Your task to perform on an android device: open app "PlayWell" (install if not already installed) Image 0: 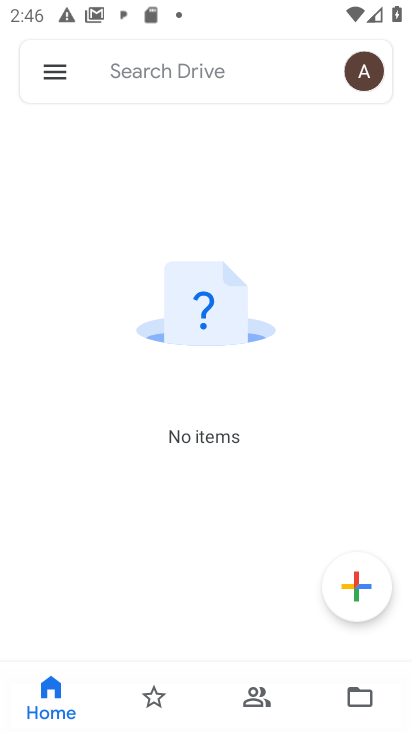
Step 0: press back button
Your task to perform on an android device: open app "PlayWell" (install if not already installed) Image 1: 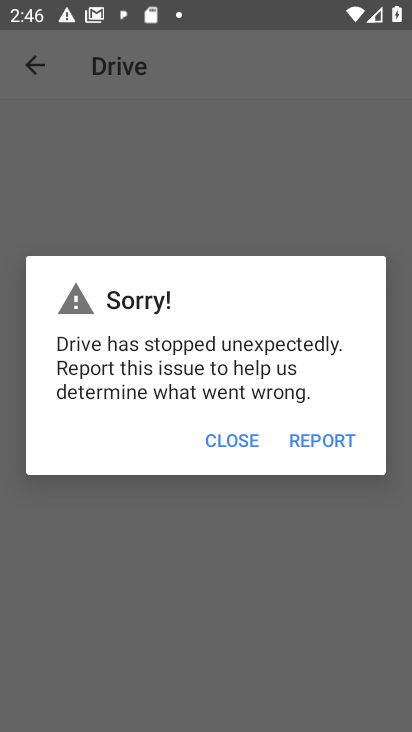
Step 1: press back button
Your task to perform on an android device: open app "PlayWell" (install if not already installed) Image 2: 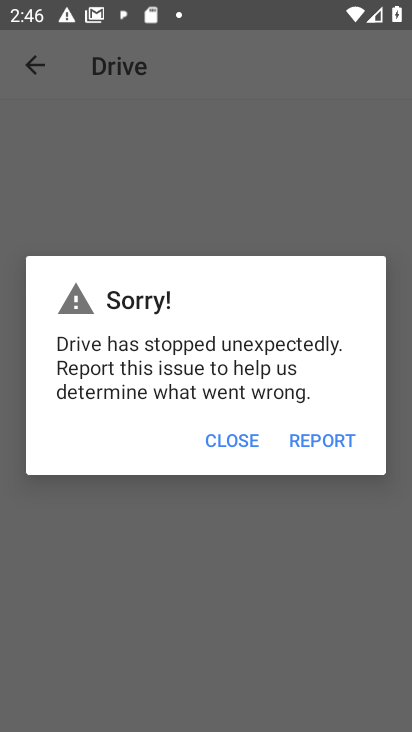
Step 2: press home button
Your task to perform on an android device: open app "PlayWell" (install if not already installed) Image 3: 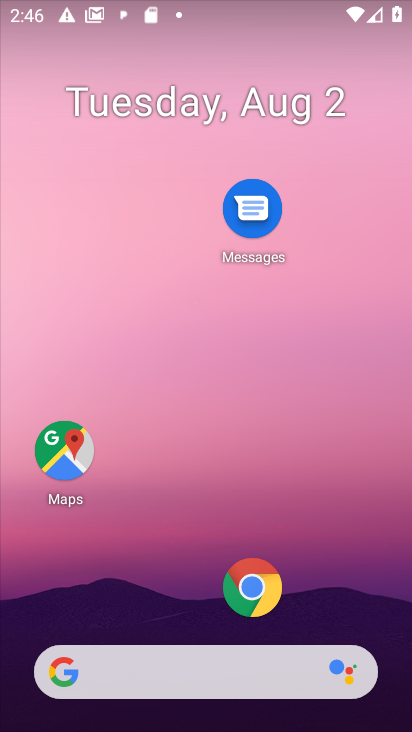
Step 3: drag from (198, 596) to (196, 173)
Your task to perform on an android device: open app "PlayWell" (install if not already installed) Image 4: 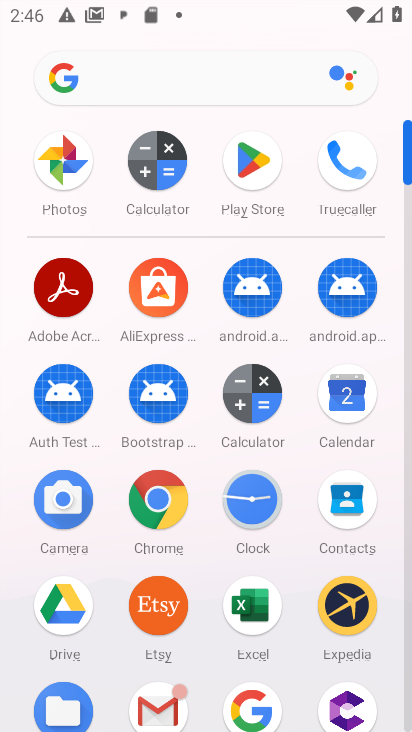
Step 4: click (249, 161)
Your task to perform on an android device: open app "PlayWell" (install if not already installed) Image 5: 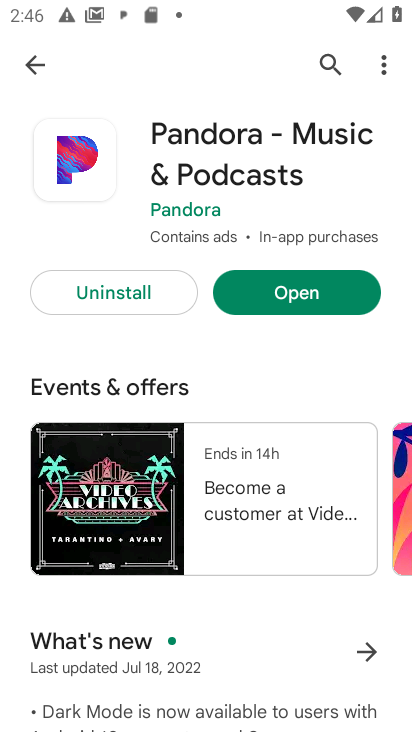
Step 5: click (320, 62)
Your task to perform on an android device: open app "PlayWell" (install if not already installed) Image 6: 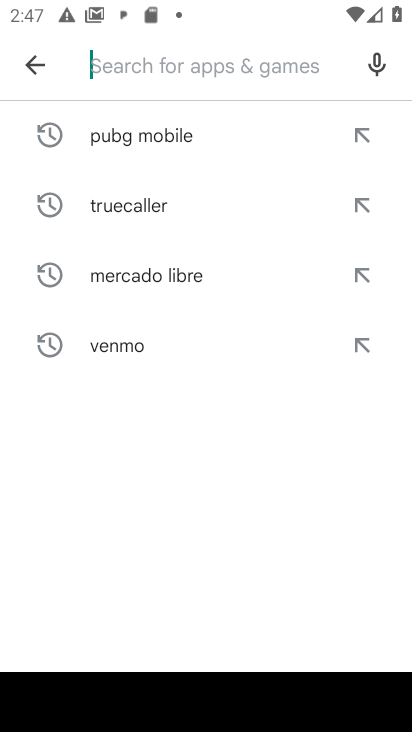
Step 6: type "PlayWell"
Your task to perform on an android device: open app "PlayWell" (install if not already installed) Image 7: 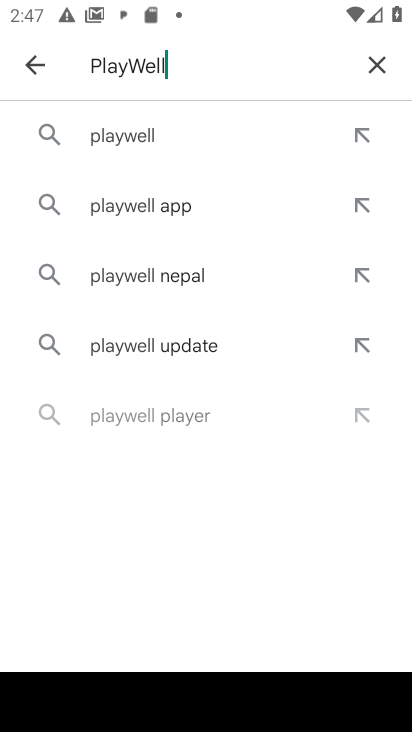
Step 7: type ""
Your task to perform on an android device: open app "PlayWell" (install if not already installed) Image 8: 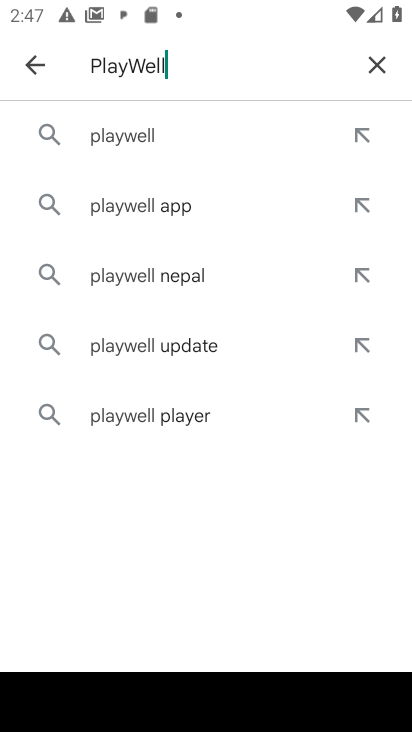
Step 8: click (183, 141)
Your task to perform on an android device: open app "PlayWell" (install if not already installed) Image 9: 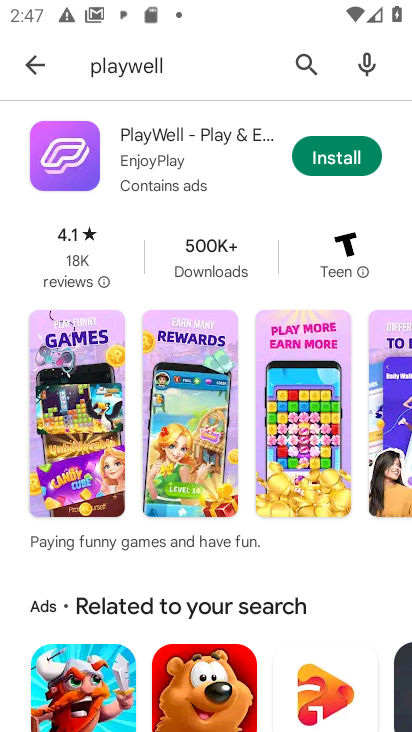
Step 9: click (311, 141)
Your task to perform on an android device: open app "PlayWell" (install if not already installed) Image 10: 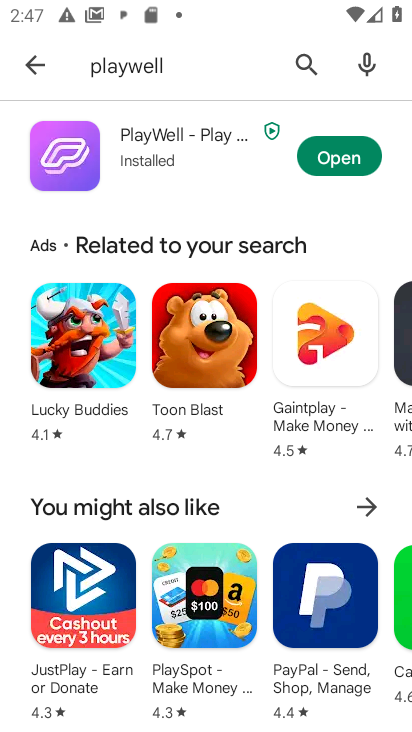
Step 10: click (306, 147)
Your task to perform on an android device: open app "PlayWell" (install if not already installed) Image 11: 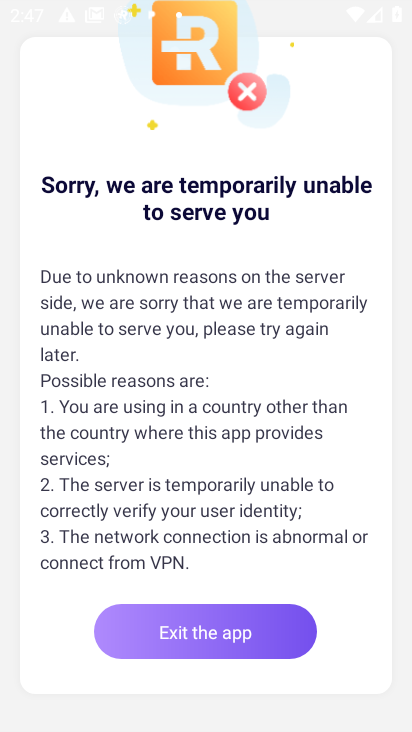
Step 11: task complete